Your task to perform on an android device: check storage Image 0: 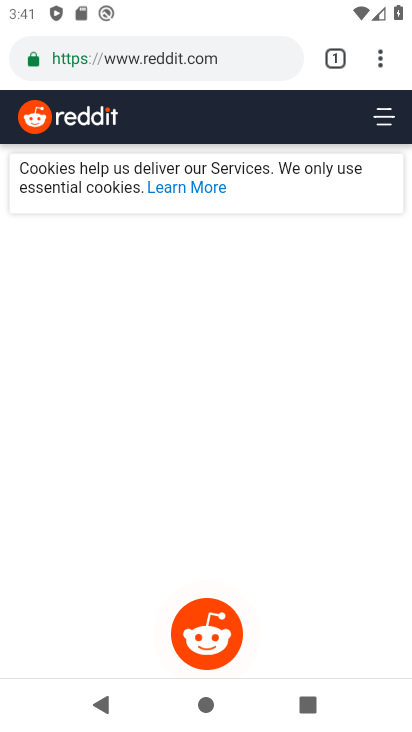
Step 0: press home button
Your task to perform on an android device: check storage Image 1: 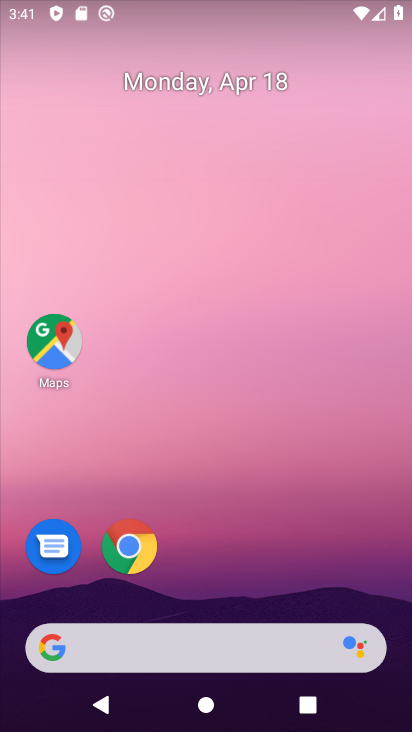
Step 1: drag from (265, 526) to (253, 142)
Your task to perform on an android device: check storage Image 2: 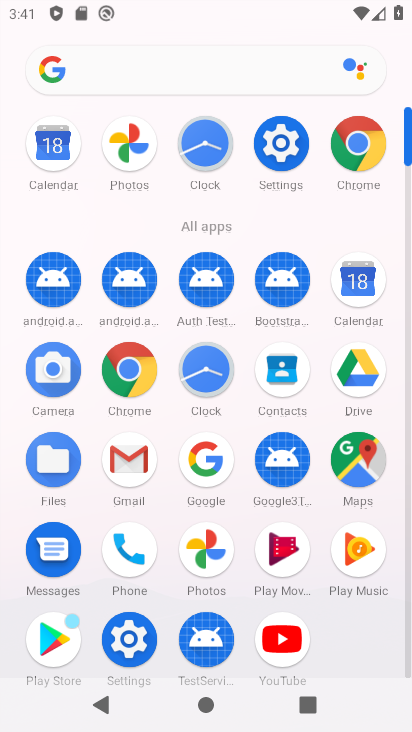
Step 2: click (128, 635)
Your task to perform on an android device: check storage Image 3: 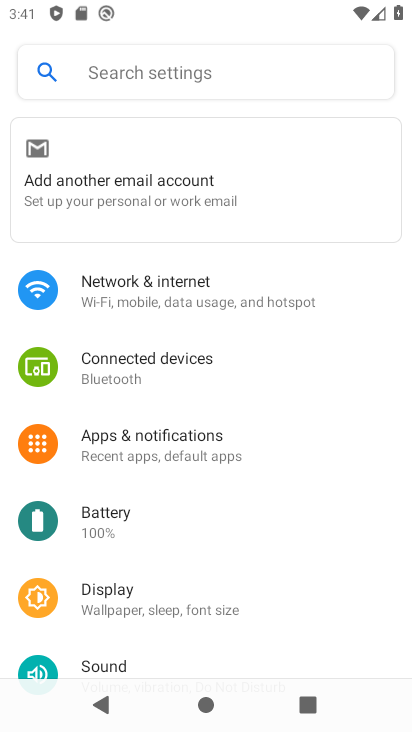
Step 3: drag from (186, 573) to (313, 199)
Your task to perform on an android device: check storage Image 4: 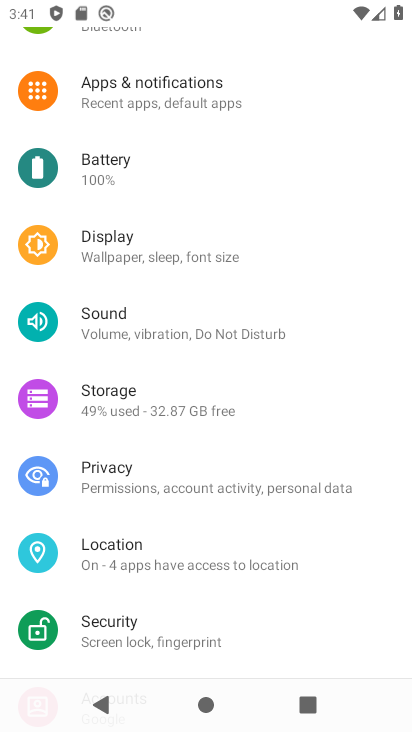
Step 4: drag from (165, 578) to (318, 259)
Your task to perform on an android device: check storage Image 5: 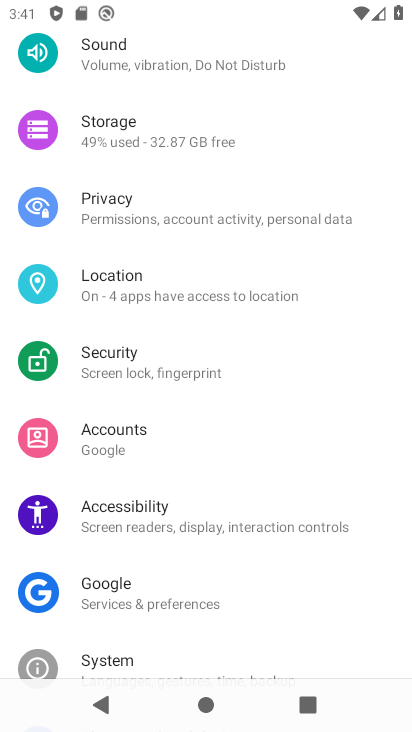
Step 5: click (135, 141)
Your task to perform on an android device: check storage Image 6: 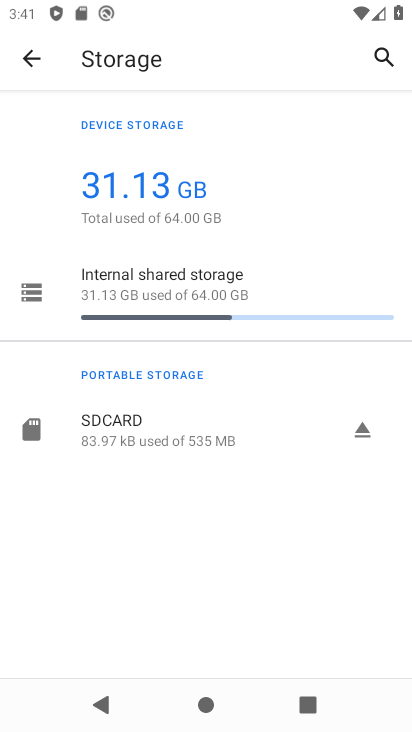
Step 6: task complete